Your task to perform on an android device: see tabs open on other devices in the chrome app Image 0: 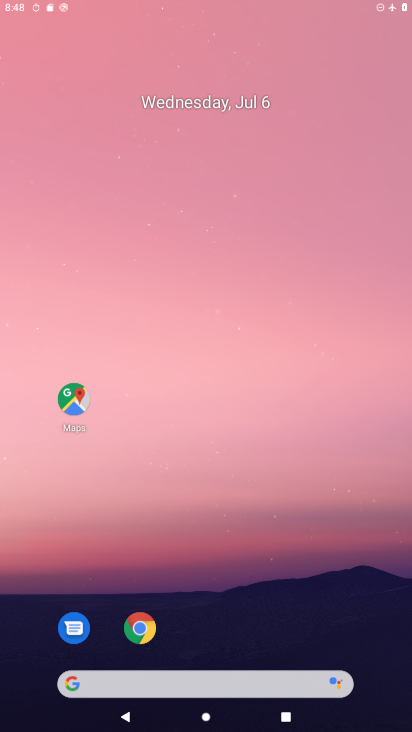
Step 0: click (227, 119)
Your task to perform on an android device: see tabs open on other devices in the chrome app Image 1: 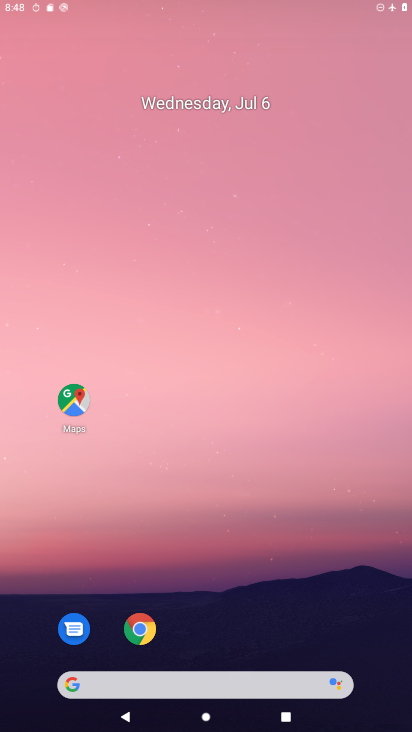
Step 1: press home button
Your task to perform on an android device: see tabs open on other devices in the chrome app Image 2: 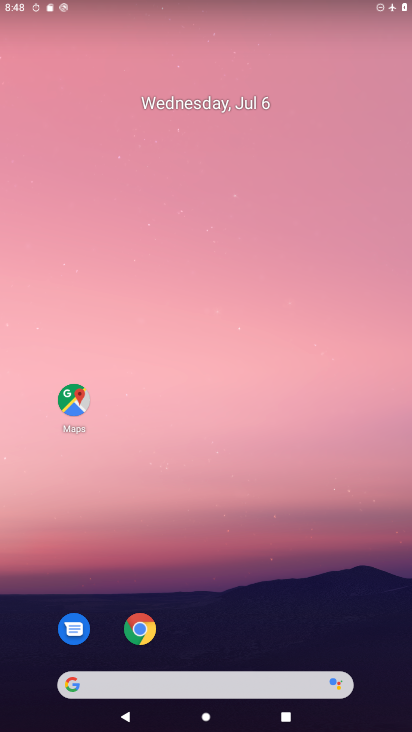
Step 2: click (144, 628)
Your task to perform on an android device: see tabs open on other devices in the chrome app Image 3: 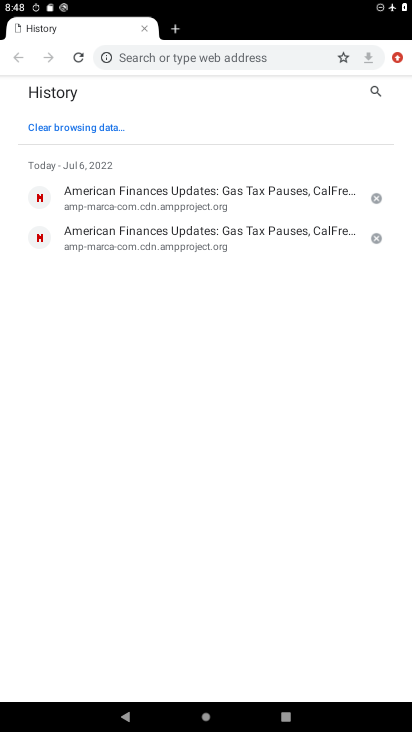
Step 3: click (398, 62)
Your task to perform on an android device: see tabs open on other devices in the chrome app Image 4: 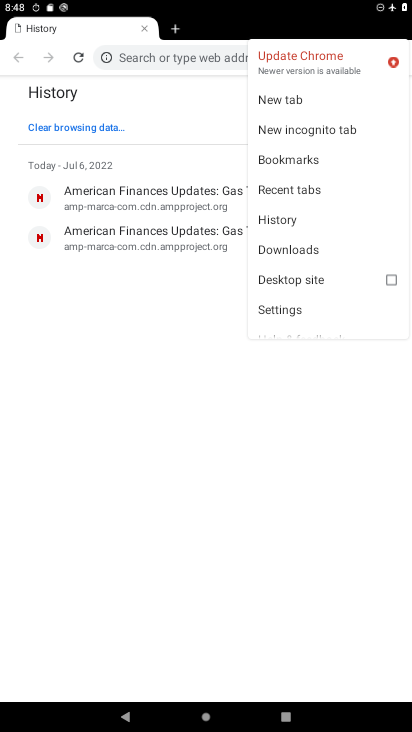
Step 4: click (285, 184)
Your task to perform on an android device: see tabs open on other devices in the chrome app Image 5: 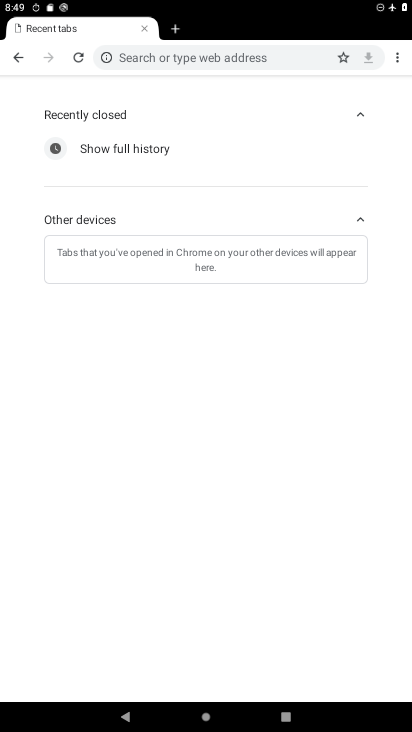
Step 5: task complete